Your task to perform on an android device: Open calendar and show me the first week of next month Image 0: 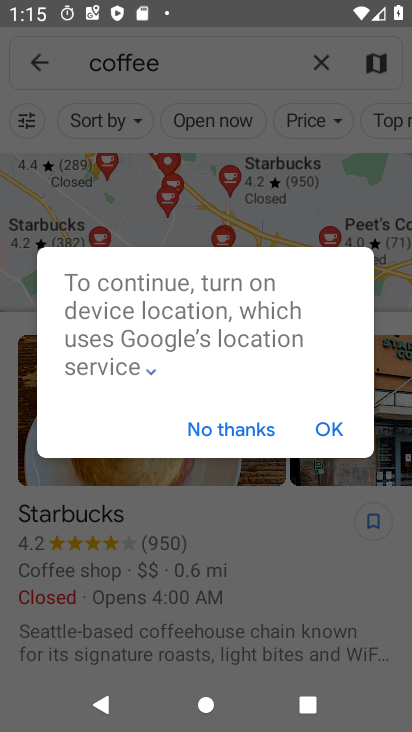
Step 0: press home button
Your task to perform on an android device: Open calendar and show me the first week of next month Image 1: 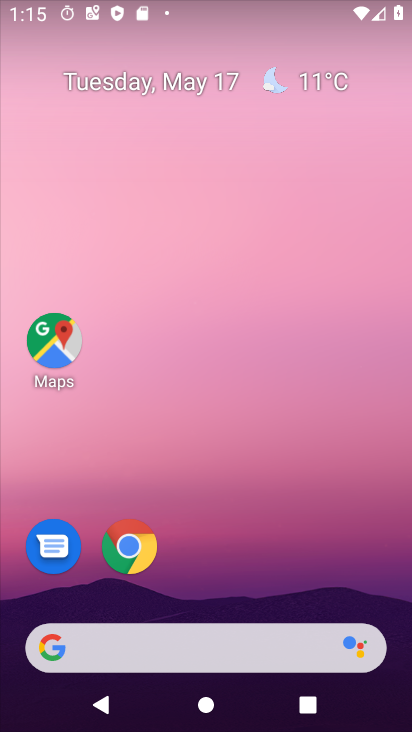
Step 1: drag from (111, 644) to (259, 154)
Your task to perform on an android device: Open calendar and show me the first week of next month Image 2: 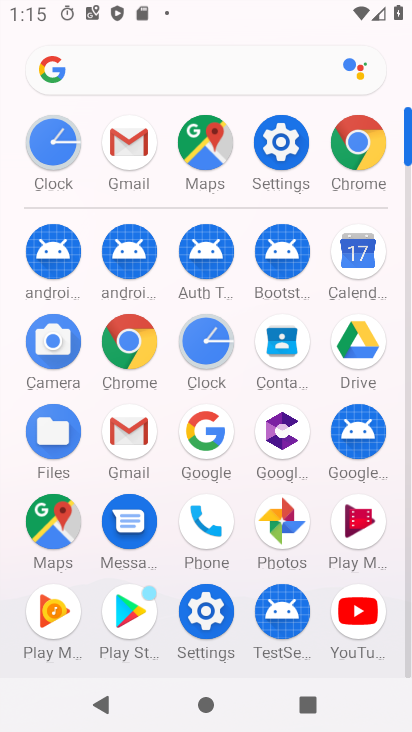
Step 2: click (364, 267)
Your task to perform on an android device: Open calendar and show me the first week of next month Image 3: 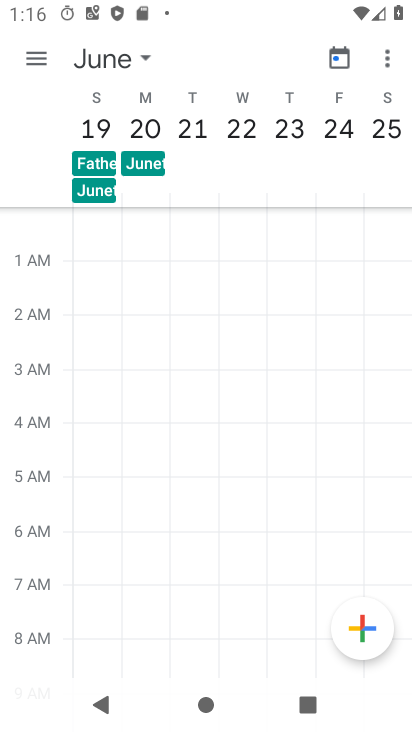
Step 3: click (118, 60)
Your task to perform on an android device: Open calendar and show me the first week of next month Image 4: 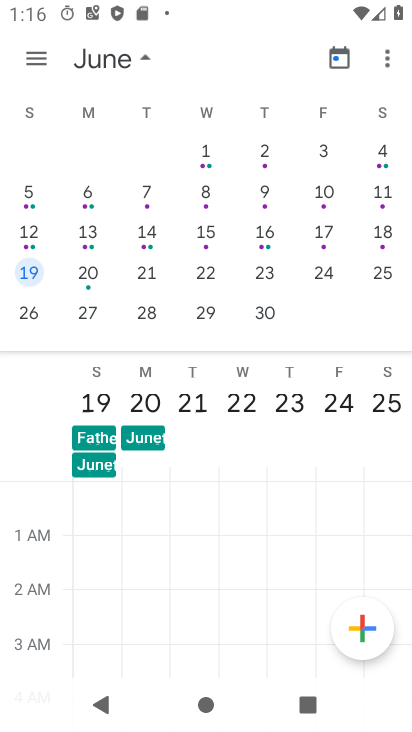
Step 4: click (197, 147)
Your task to perform on an android device: Open calendar and show me the first week of next month Image 5: 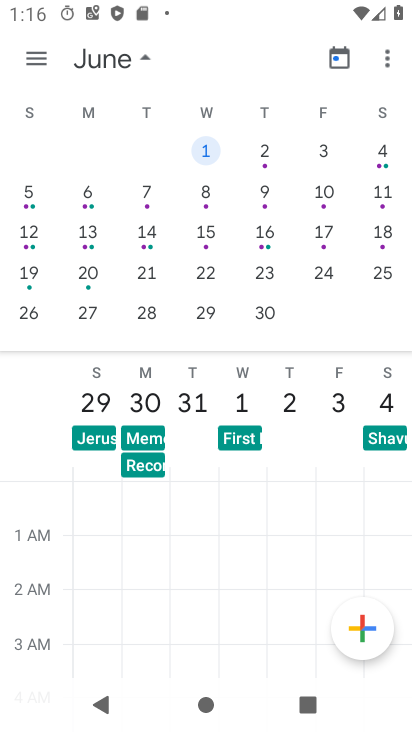
Step 5: click (46, 58)
Your task to perform on an android device: Open calendar and show me the first week of next month Image 6: 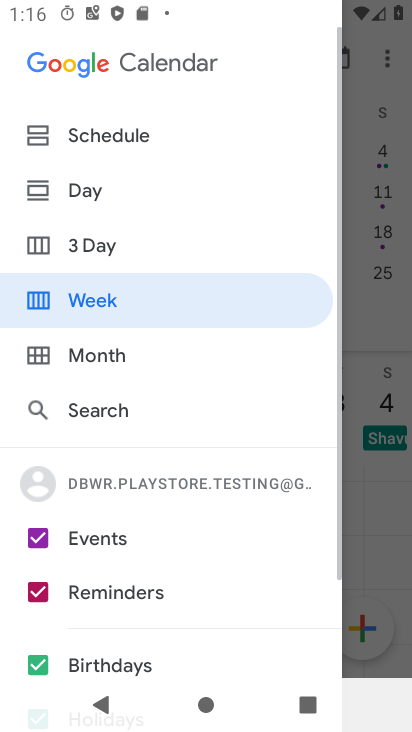
Step 6: click (90, 291)
Your task to perform on an android device: Open calendar and show me the first week of next month Image 7: 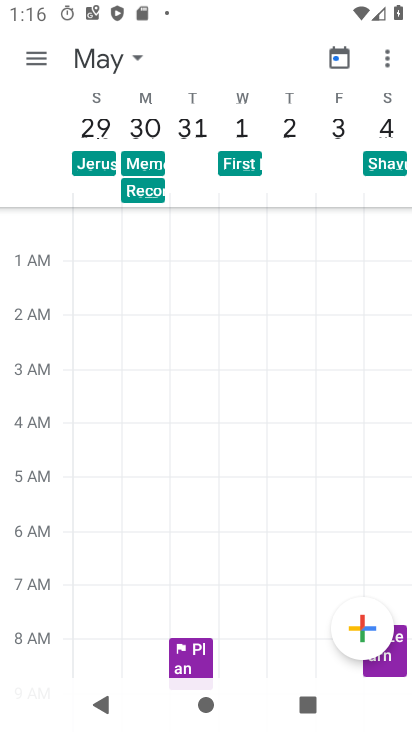
Step 7: task complete